Your task to perform on an android device: search for starred emails in the gmail app Image 0: 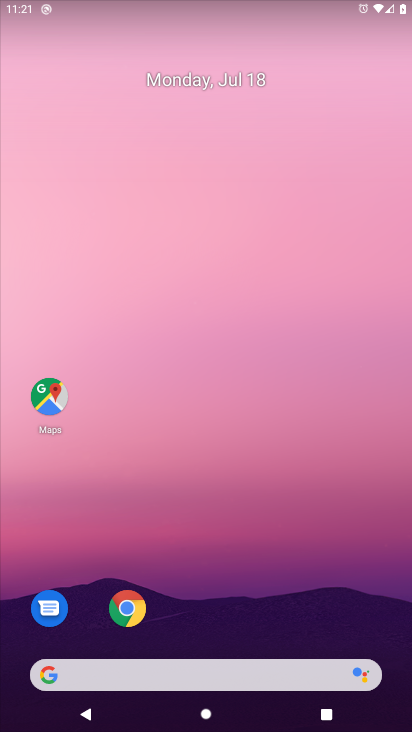
Step 0: drag from (32, 711) to (247, 302)
Your task to perform on an android device: search for starred emails in the gmail app Image 1: 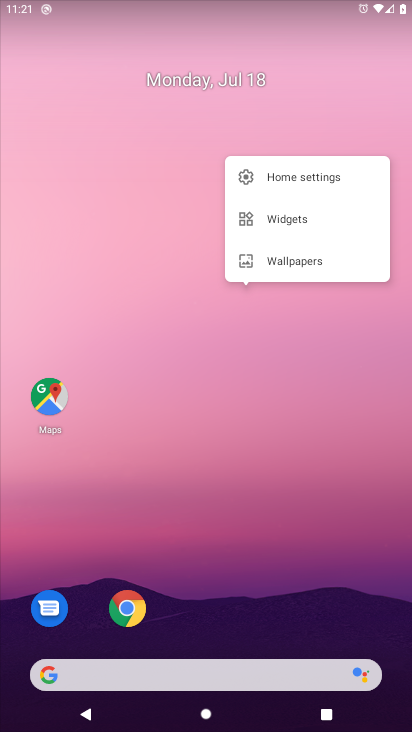
Step 1: drag from (33, 714) to (196, 21)
Your task to perform on an android device: search for starred emails in the gmail app Image 2: 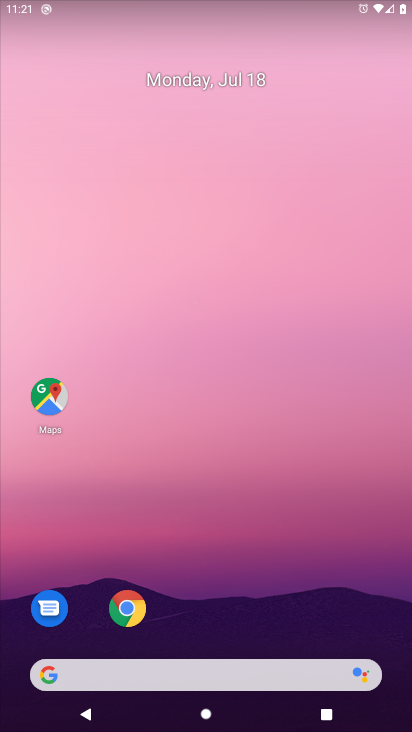
Step 2: drag from (12, 660) to (74, 275)
Your task to perform on an android device: search for starred emails in the gmail app Image 3: 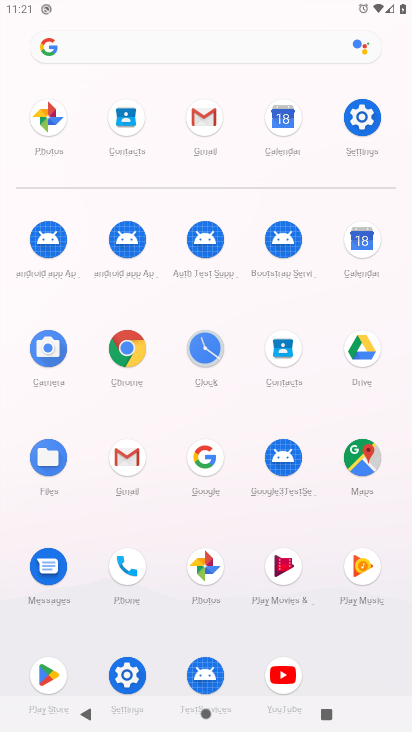
Step 3: click (120, 457)
Your task to perform on an android device: search for starred emails in the gmail app Image 4: 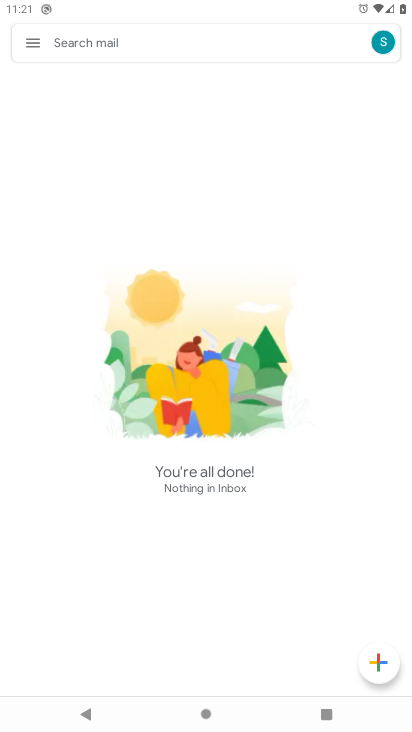
Step 4: click (36, 41)
Your task to perform on an android device: search for starred emails in the gmail app Image 5: 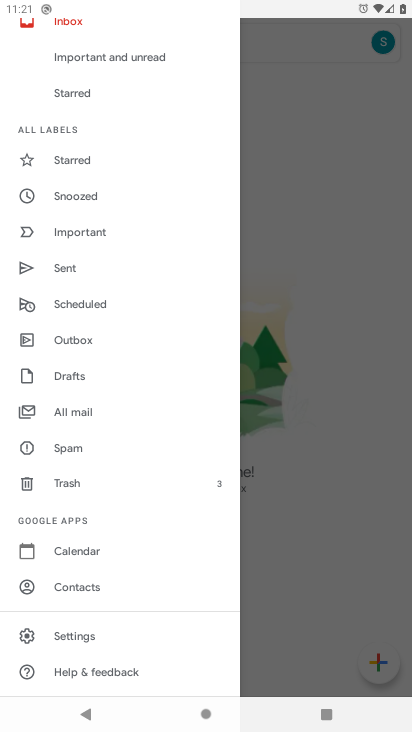
Step 5: click (70, 163)
Your task to perform on an android device: search for starred emails in the gmail app Image 6: 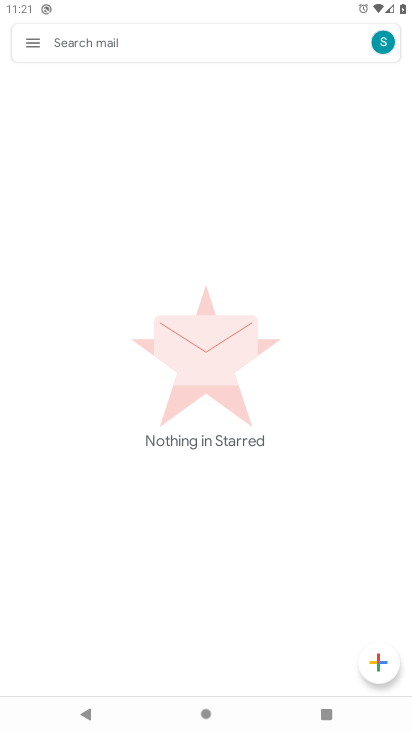
Step 6: task complete